Your task to perform on an android device: open app "Google Chat" (install if not already installed) Image 0: 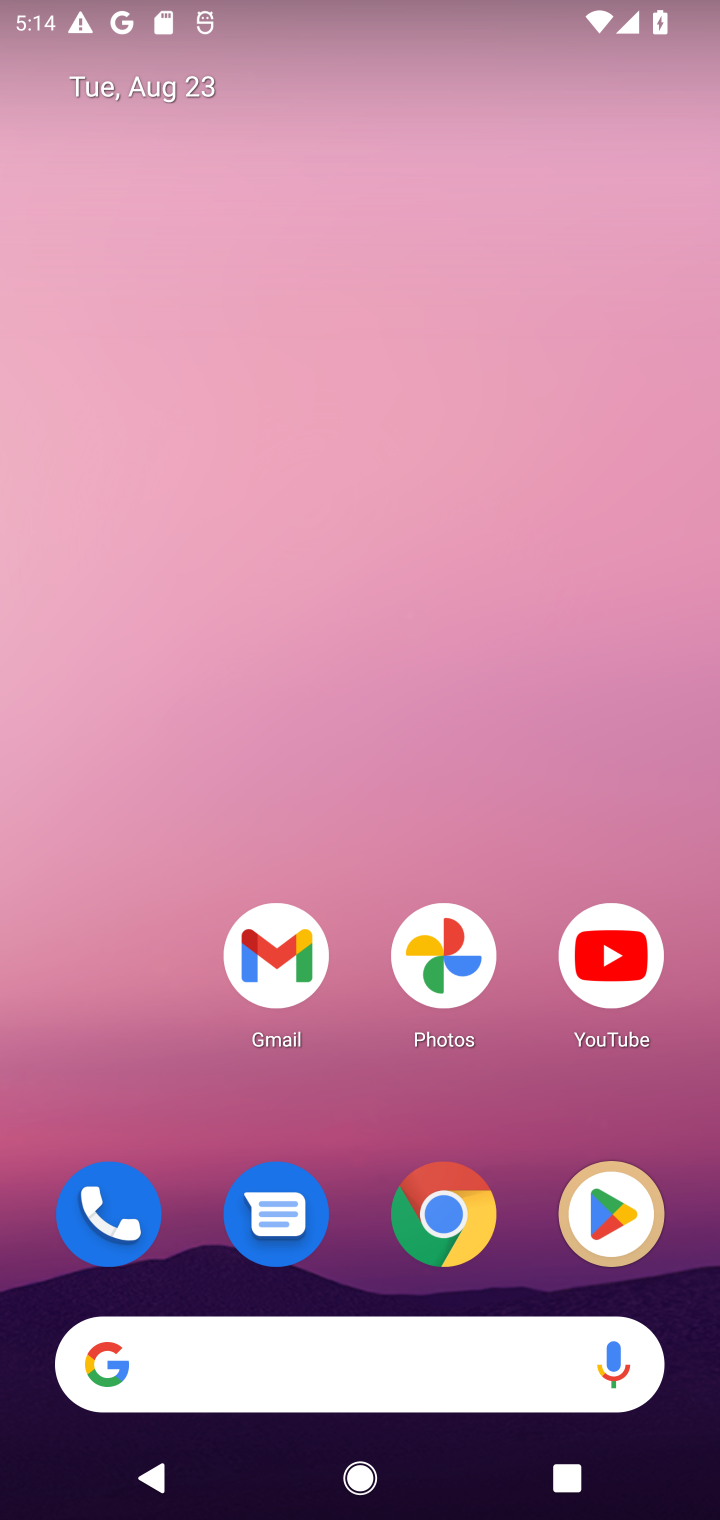
Step 0: drag from (279, 1357) to (306, 323)
Your task to perform on an android device: open app "Google Chat" (install if not already installed) Image 1: 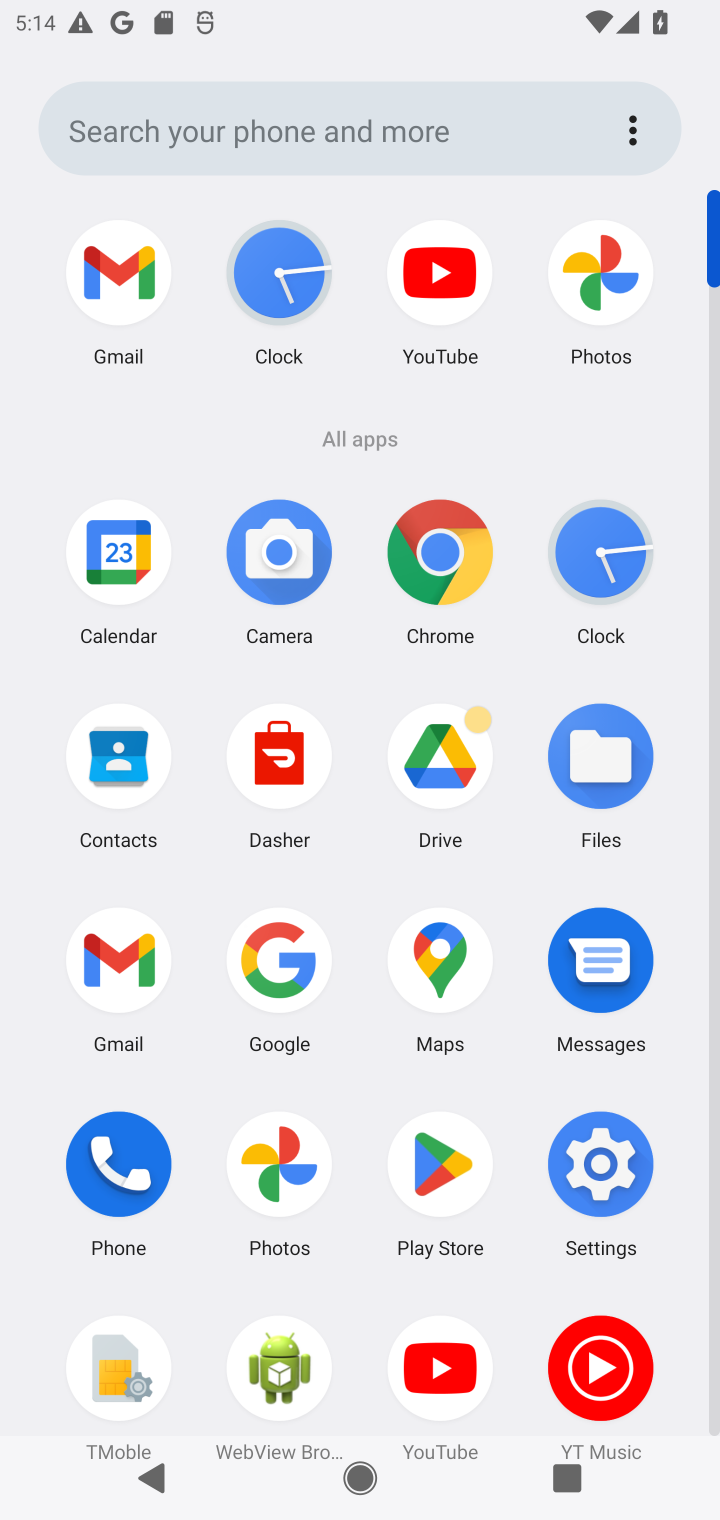
Step 1: click (412, 1181)
Your task to perform on an android device: open app "Google Chat" (install if not already installed) Image 2: 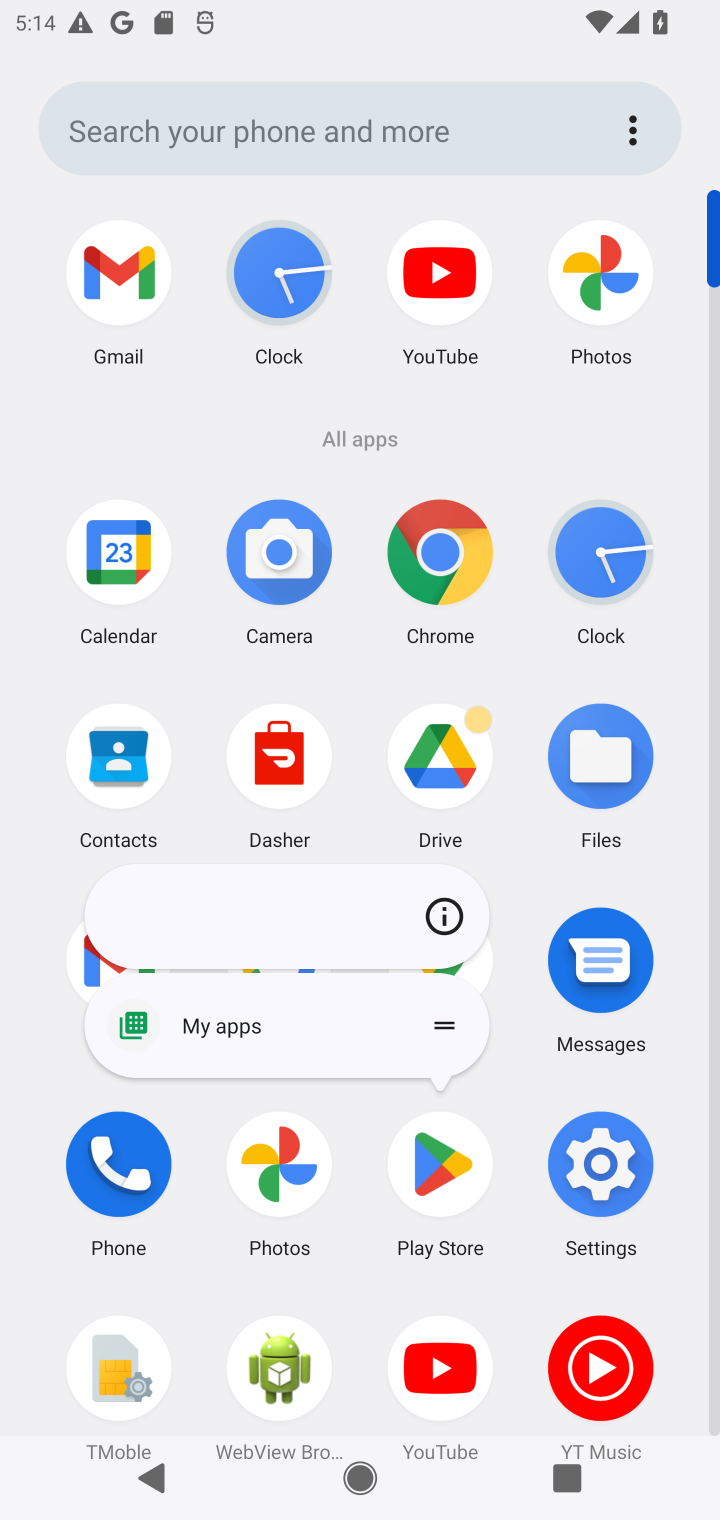
Step 2: click (177, 140)
Your task to perform on an android device: open app "Google Chat" (install if not already installed) Image 3: 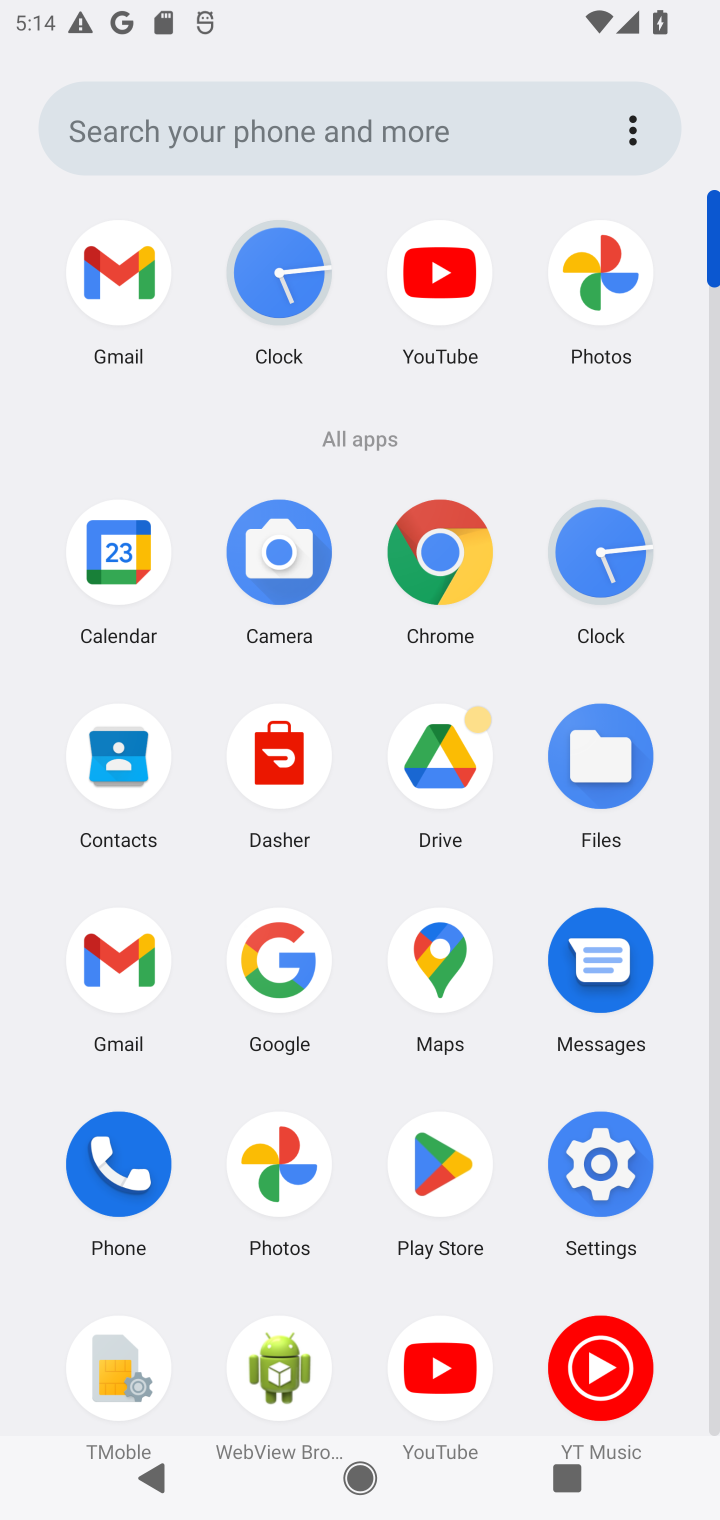
Step 3: click (450, 1159)
Your task to perform on an android device: open app "Google Chat" (install if not already installed) Image 4: 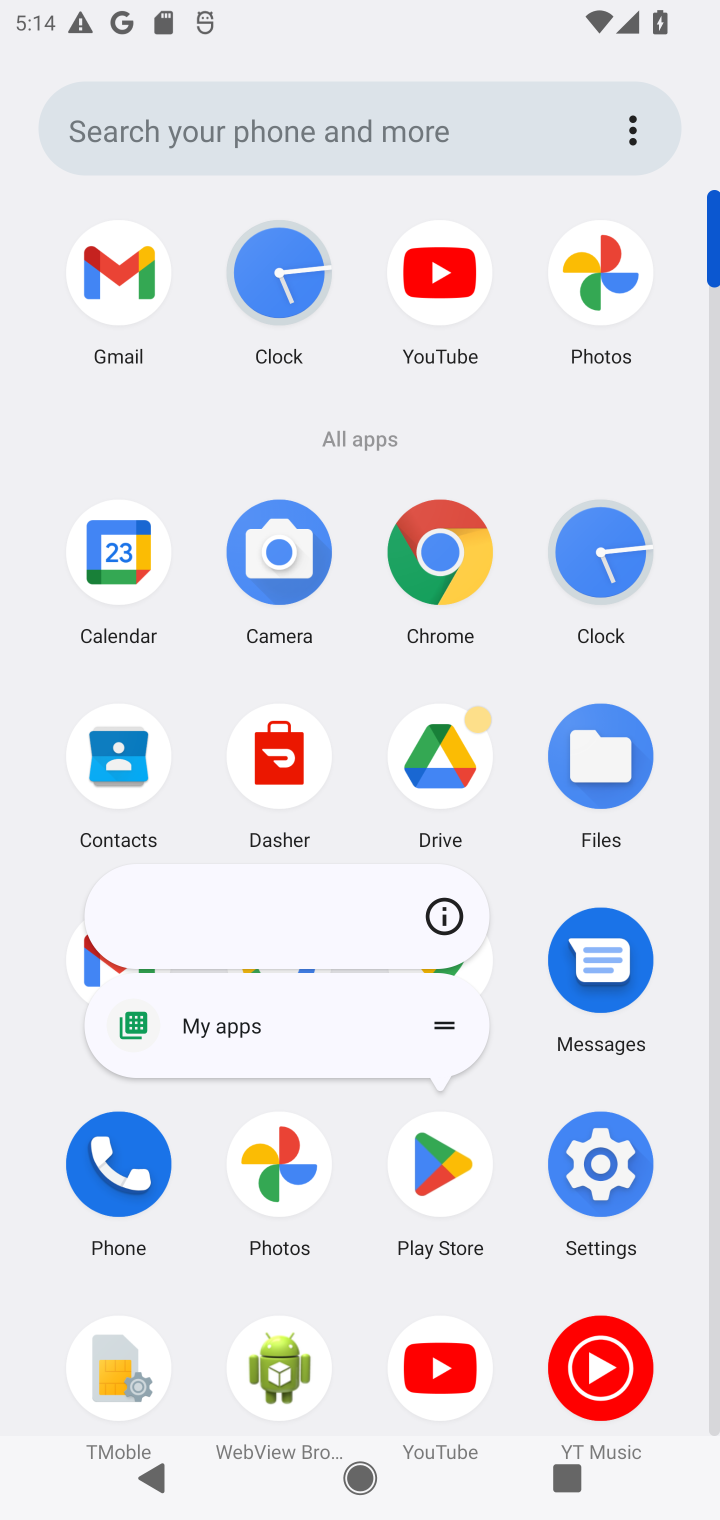
Step 4: click (450, 1159)
Your task to perform on an android device: open app "Google Chat" (install if not already installed) Image 5: 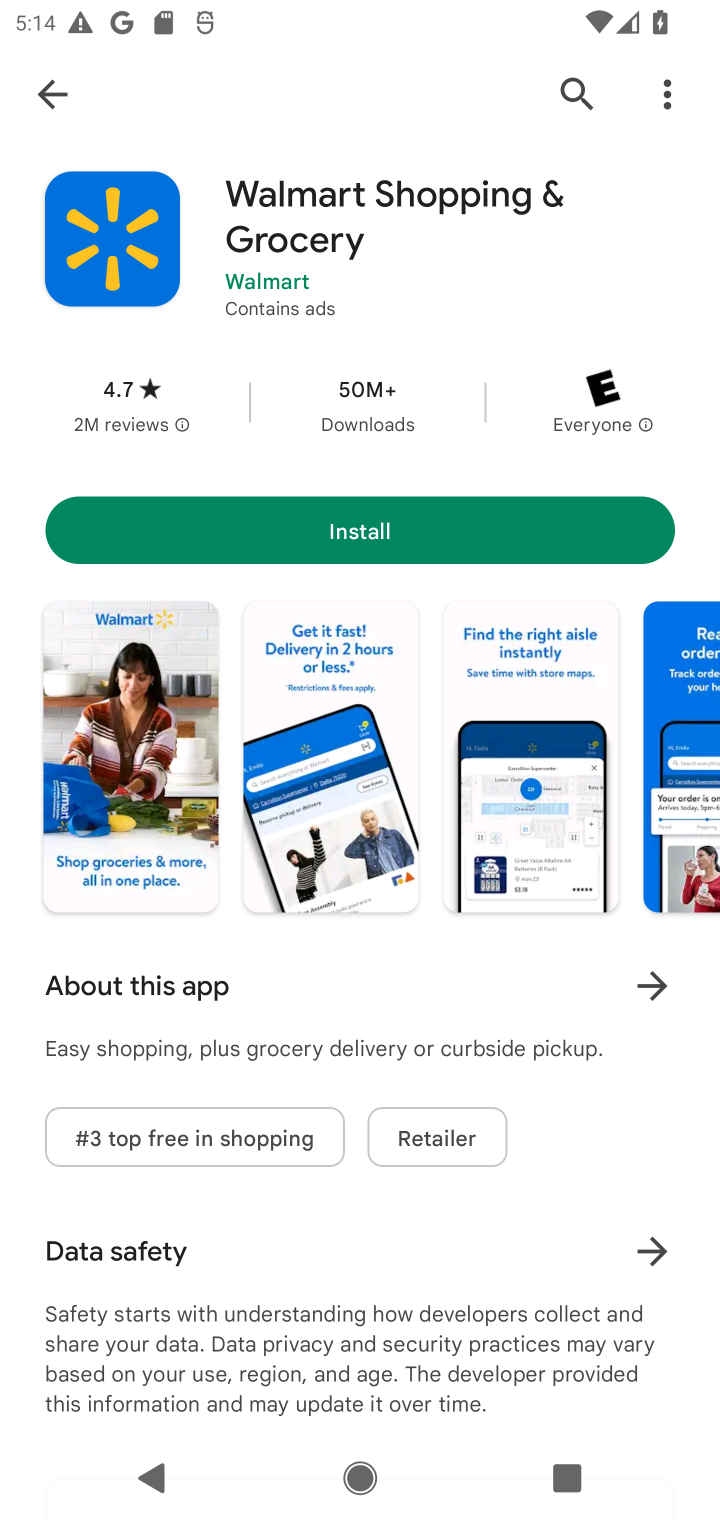
Step 5: click (557, 92)
Your task to perform on an android device: open app "Google Chat" (install if not already installed) Image 6: 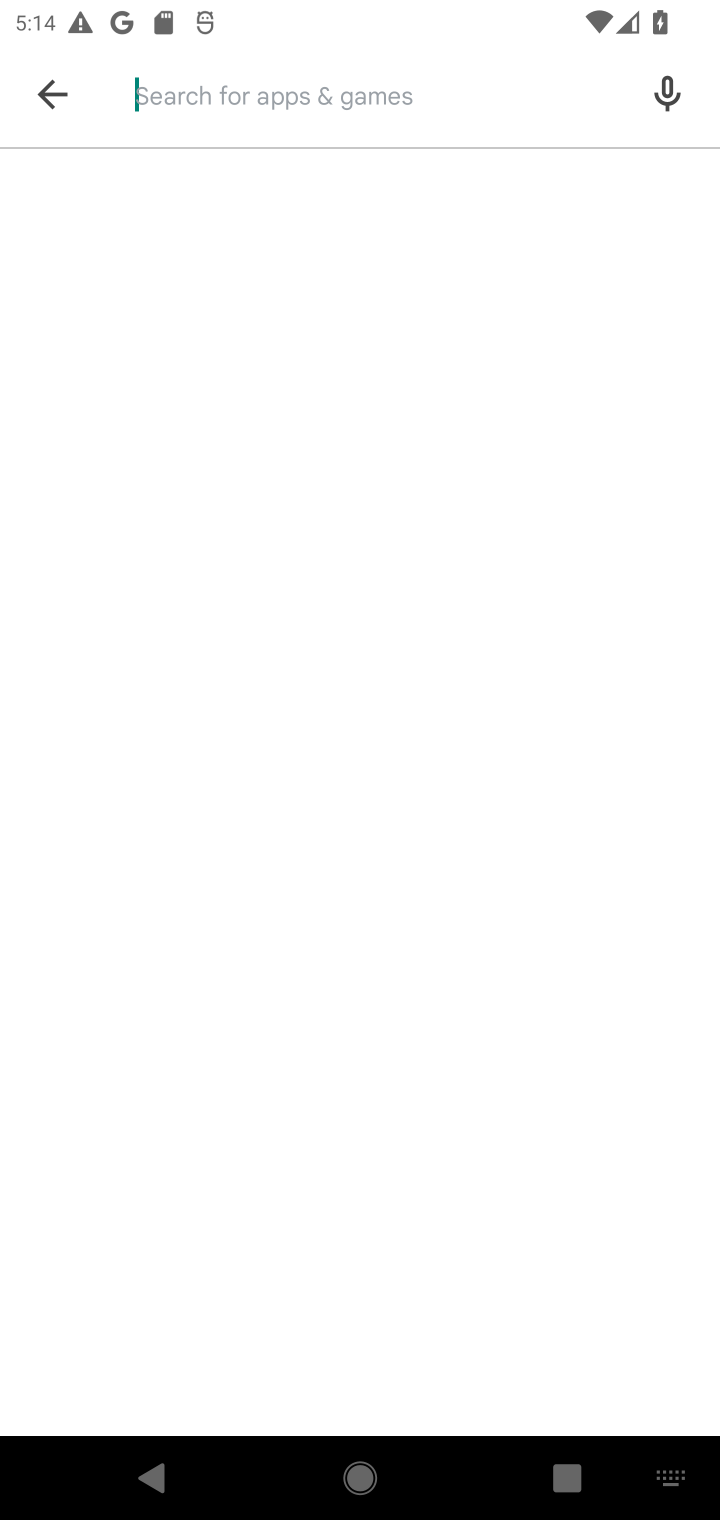
Step 6: type "Google Chat"
Your task to perform on an android device: open app "Google Chat" (install if not already installed) Image 7: 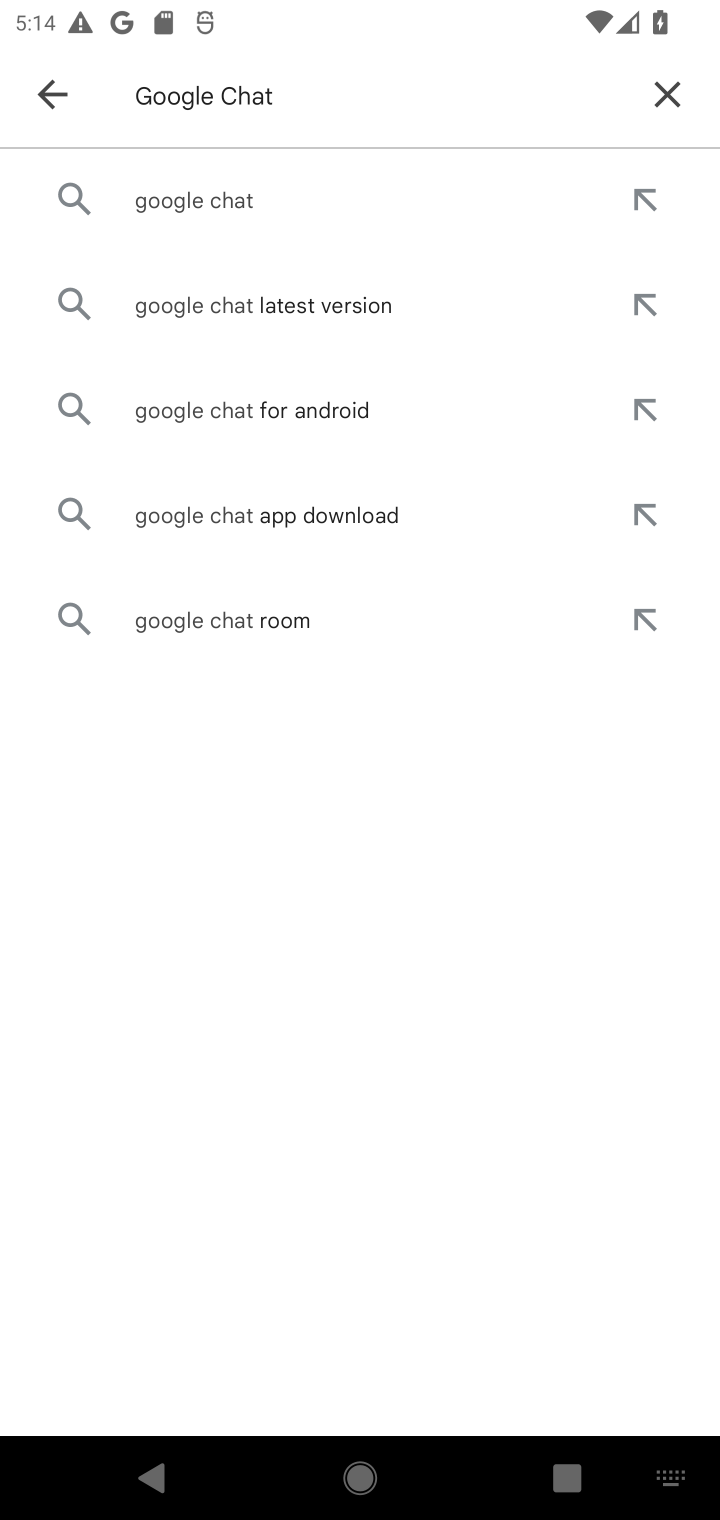
Step 7: click (168, 209)
Your task to perform on an android device: open app "Google Chat" (install if not already installed) Image 8: 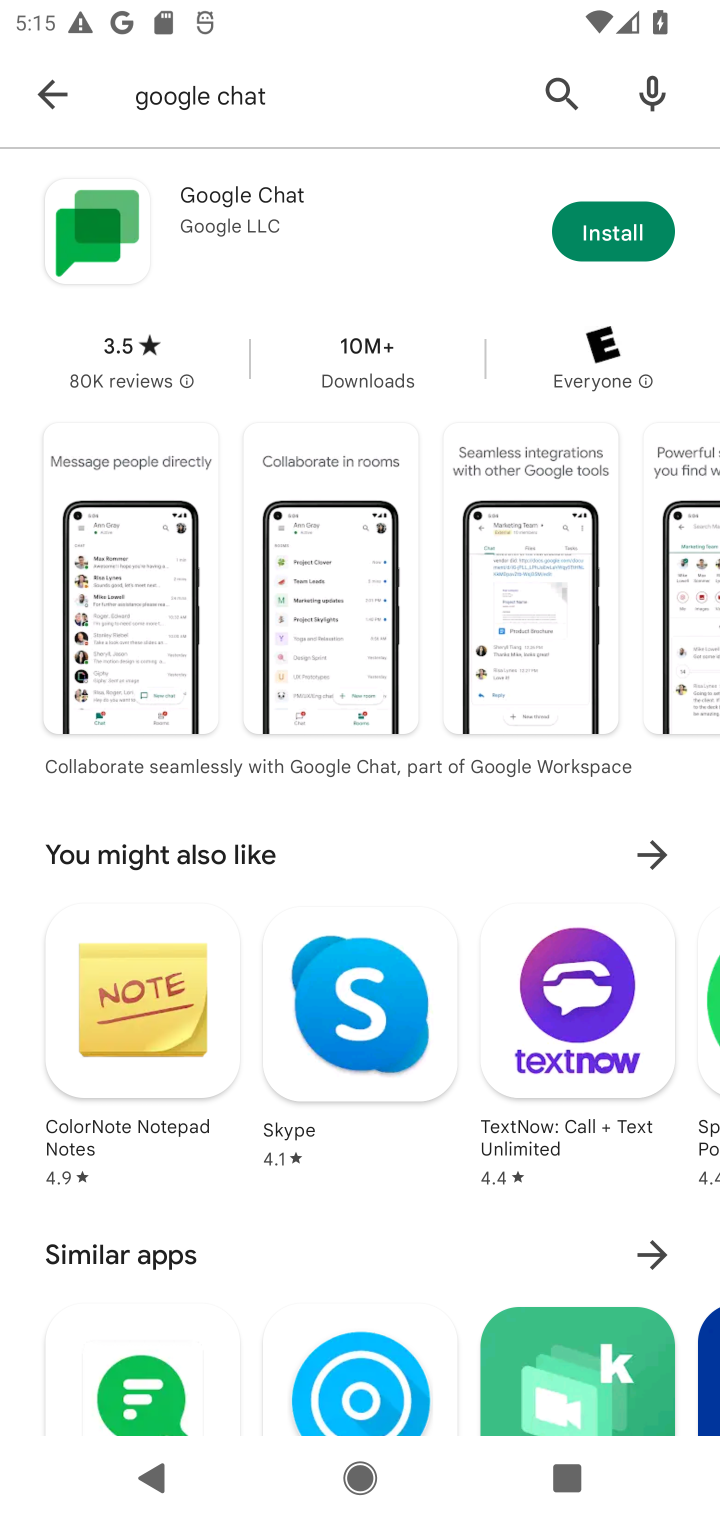
Step 8: click (616, 238)
Your task to perform on an android device: open app "Google Chat" (install if not already installed) Image 9: 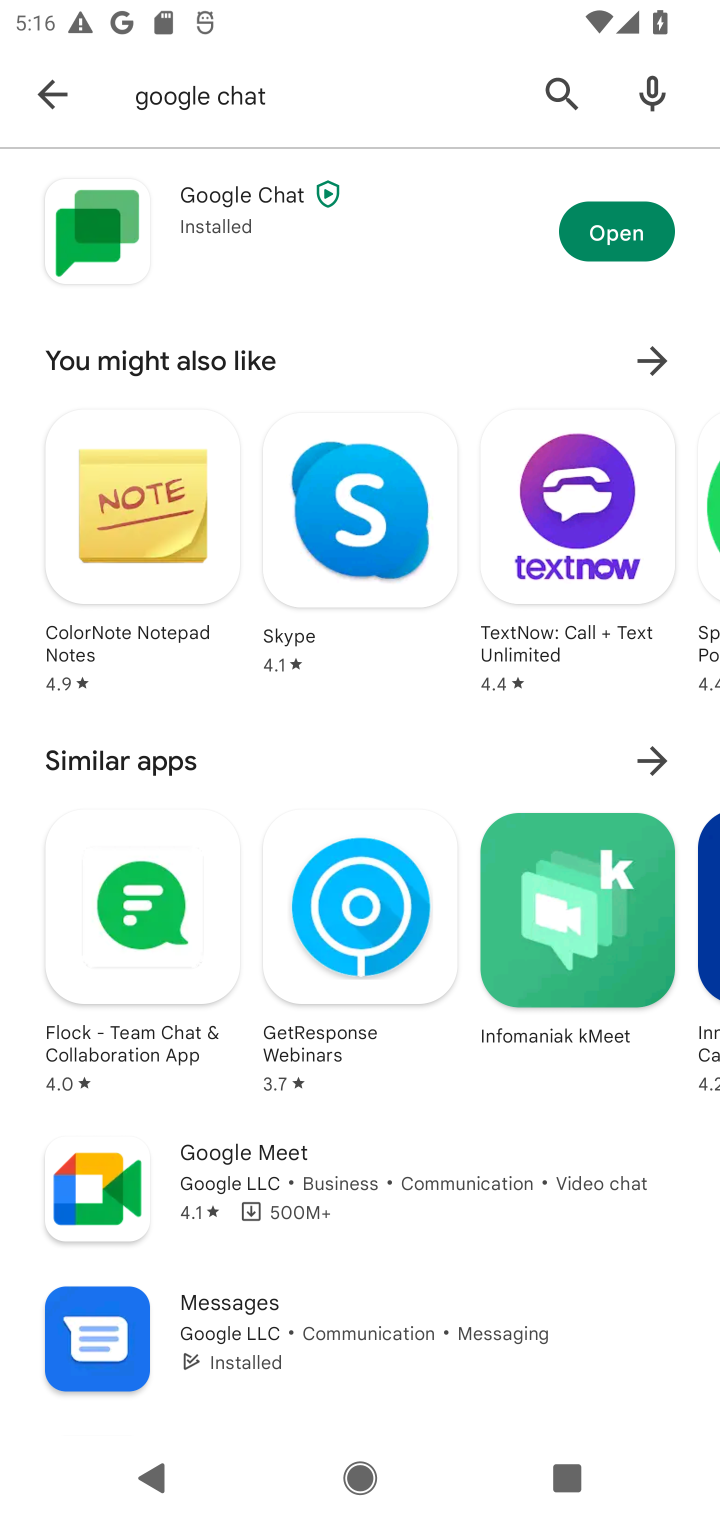
Step 9: click (597, 221)
Your task to perform on an android device: open app "Google Chat" (install if not already installed) Image 10: 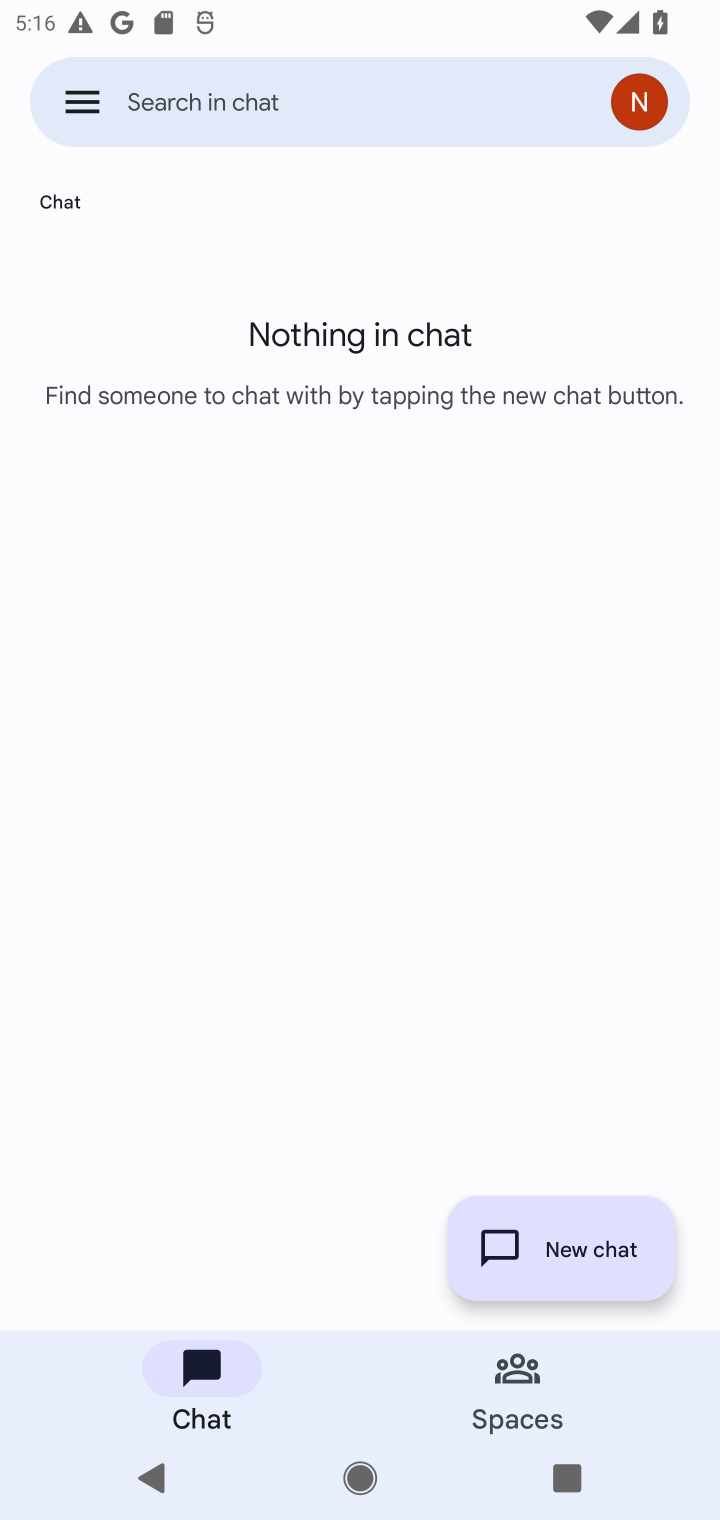
Step 10: task complete